Your task to perform on an android device: open sync settings in chrome Image 0: 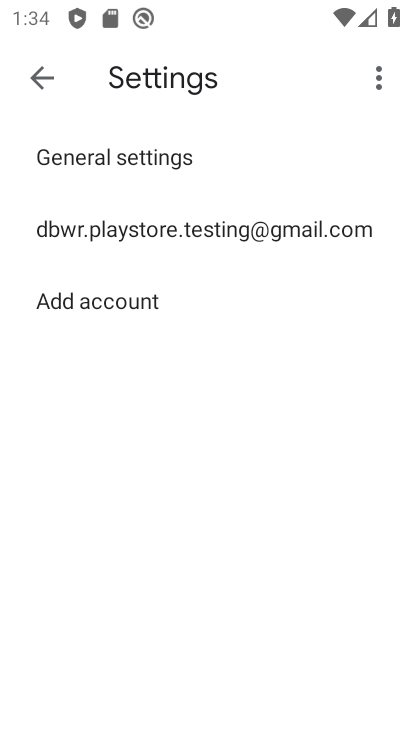
Step 0: press home button
Your task to perform on an android device: open sync settings in chrome Image 1: 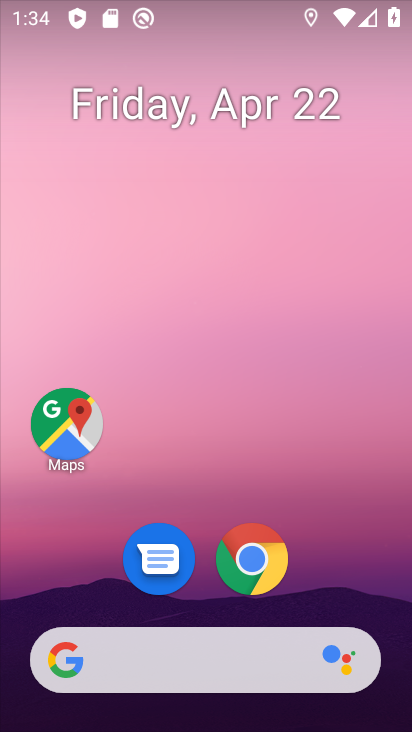
Step 1: drag from (322, 564) to (282, 33)
Your task to perform on an android device: open sync settings in chrome Image 2: 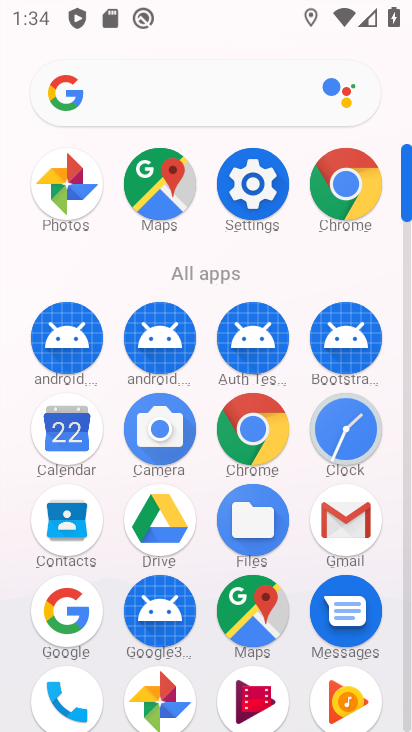
Step 2: click (344, 192)
Your task to perform on an android device: open sync settings in chrome Image 3: 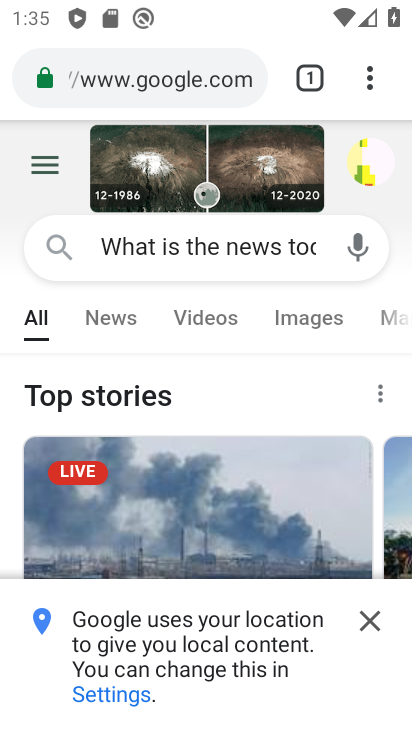
Step 3: drag from (370, 72) to (166, 622)
Your task to perform on an android device: open sync settings in chrome Image 4: 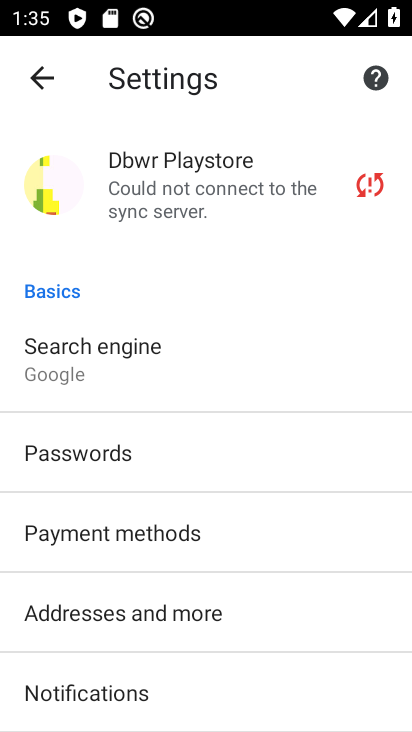
Step 4: click (280, 180)
Your task to perform on an android device: open sync settings in chrome Image 5: 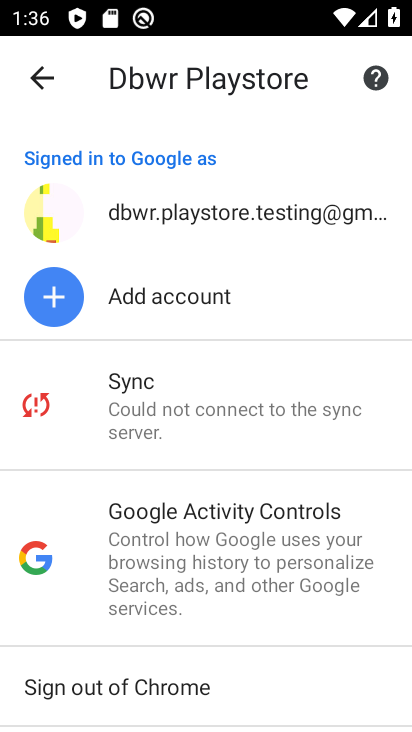
Step 5: click (223, 386)
Your task to perform on an android device: open sync settings in chrome Image 6: 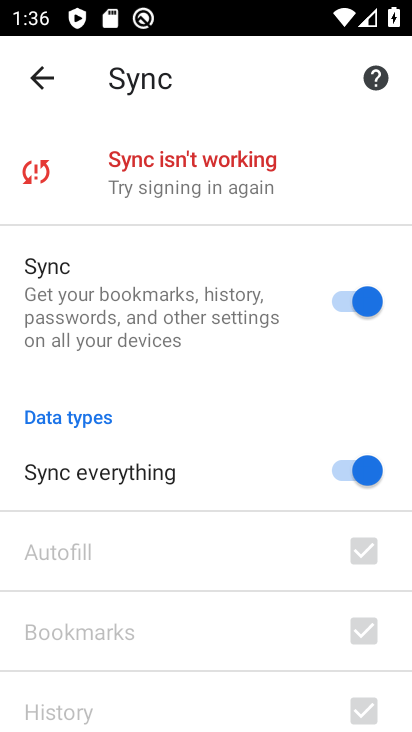
Step 6: task complete